Your task to perform on an android device: set the stopwatch Image 0: 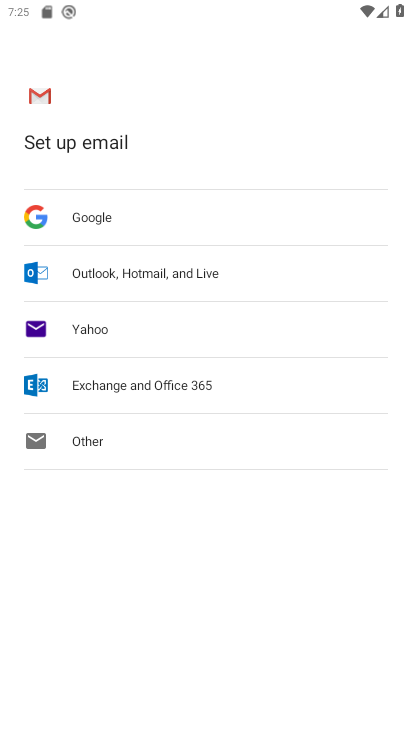
Step 0: press home button
Your task to perform on an android device: set the stopwatch Image 1: 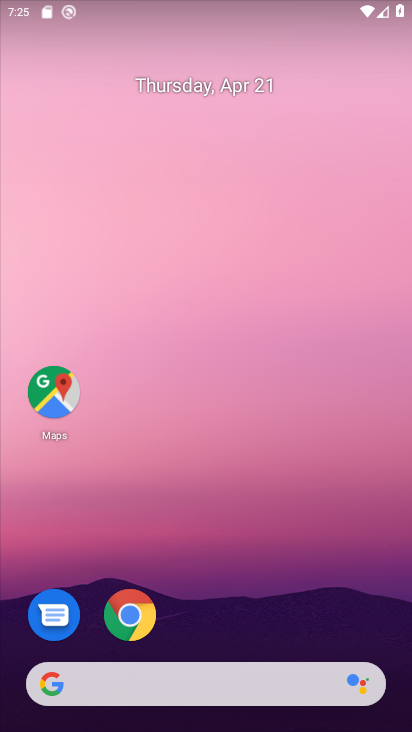
Step 1: drag from (126, 681) to (315, 28)
Your task to perform on an android device: set the stopwatch Image 2: 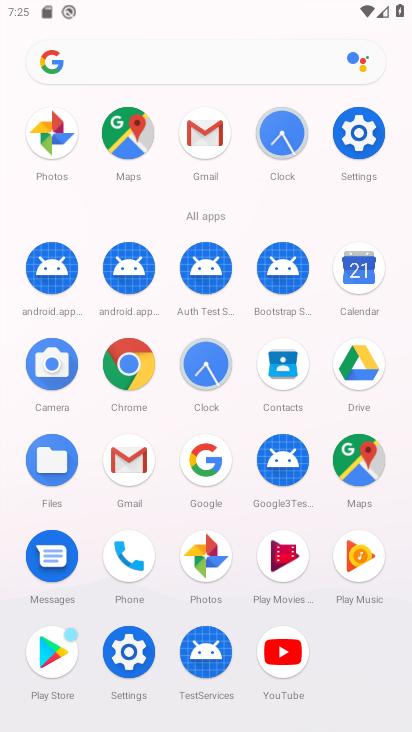
Step 2: click (200, 375)
Your task to perform on an android device: set the stopwatch Image 3: 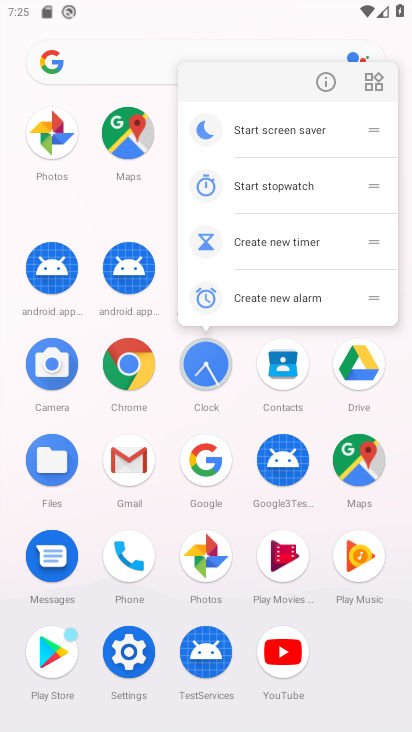
Step 3: click (200, 374)
Your task to perform on an android device: set the stopwatch Image 4: 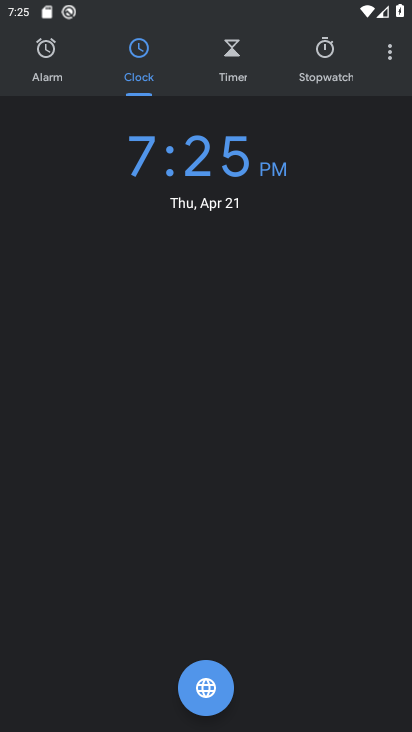
Step 4: click (331, 79)
Your task to perform on an android device: set the stopwatch Image 5: 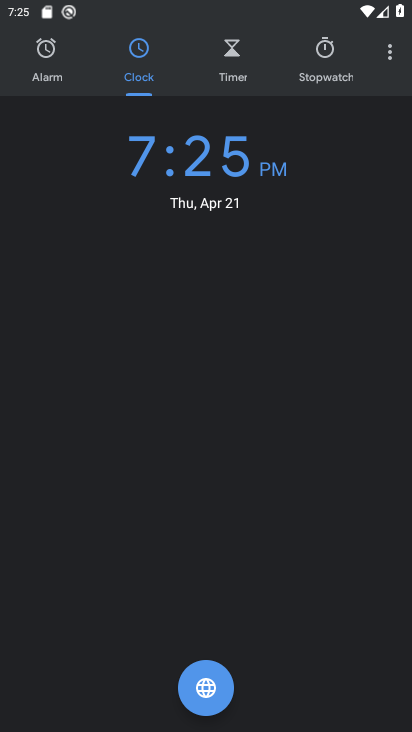
Step 5: click (328, 70)
Your task to perform on an android device: set the stopwatch Image 6: 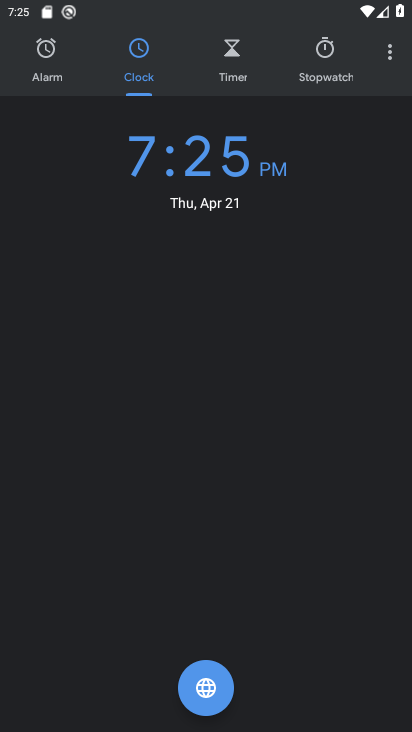
Step 6: click (321, 51)
Your task to perform on an android device: set the stopwatch Image 7: 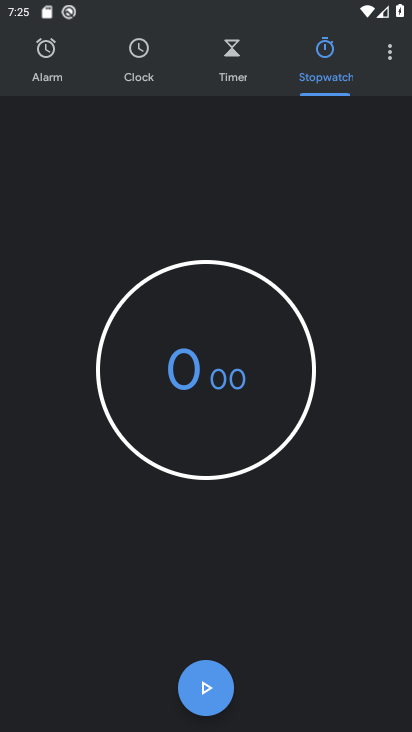
Step 7: click (225, 388)
Your task to perform on an android device: set the stopwatch Image 8: 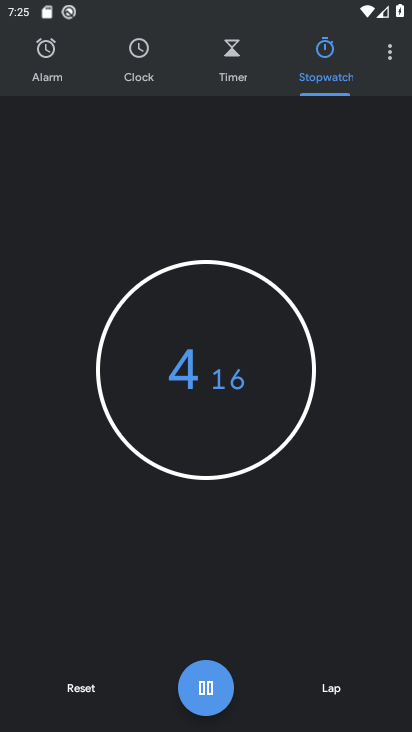
Step 8: click (225, 387)
Your task to perform on an android device: set the stopwatch Image 9: 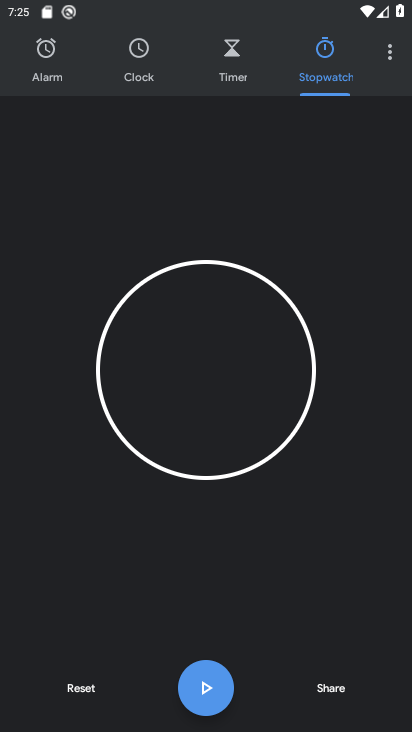
Step 9: task complete